Your task to perform on an android device: check google app version Image 0: 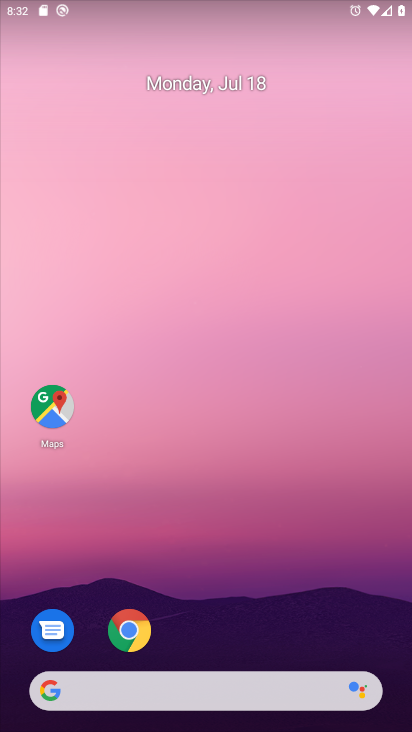
Step 0: drag from (241, 641) to (241, 156)
Your task to perform on an android device: check google app version Image 1: 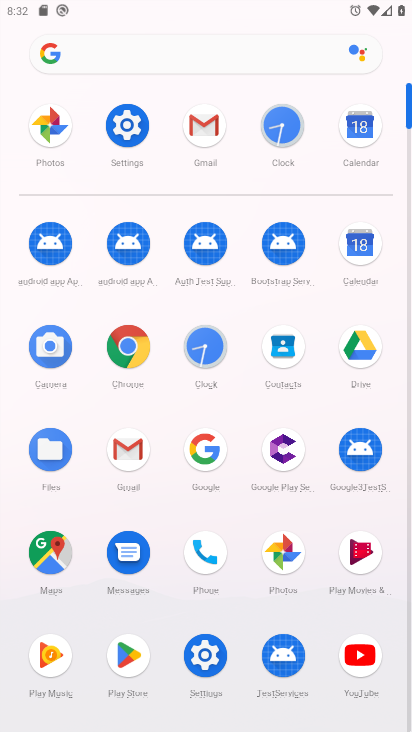
Step 1: click (211, 447)
Your task to perform on an android device: check google app version Image 2: 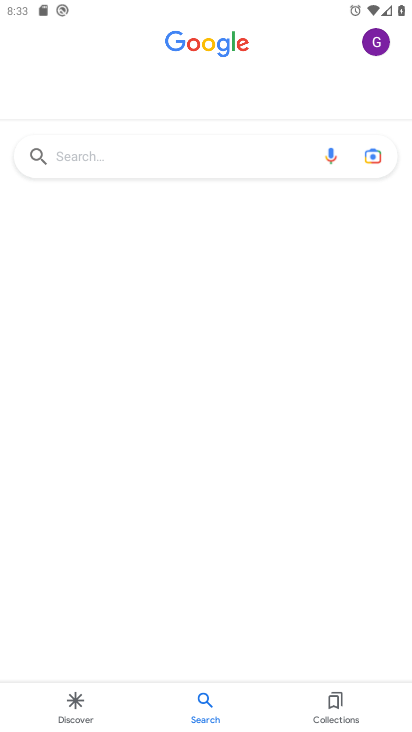
Step 2: click (386, 46)
Your task to perform on an android device: check google app version Image 3: 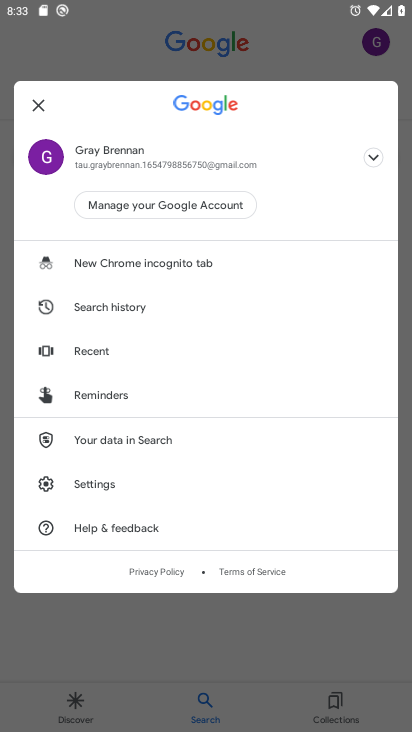
Step 3: click (104, 480)
Your task to perform on an android device: check google app version Image 4: 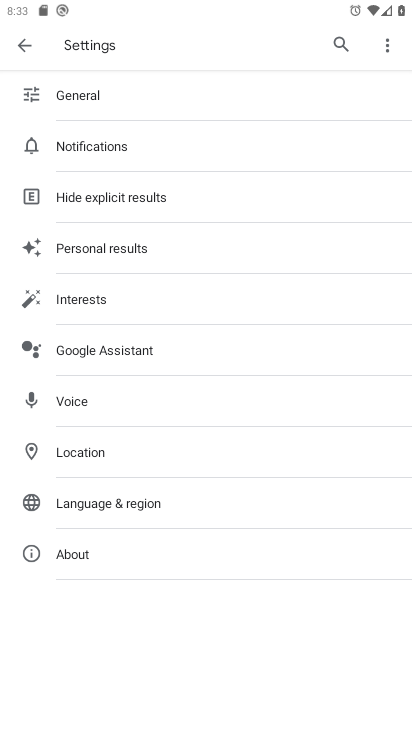
Step 4: click (104, 561)
Your task to perform on an android device: check google app version Image 5: 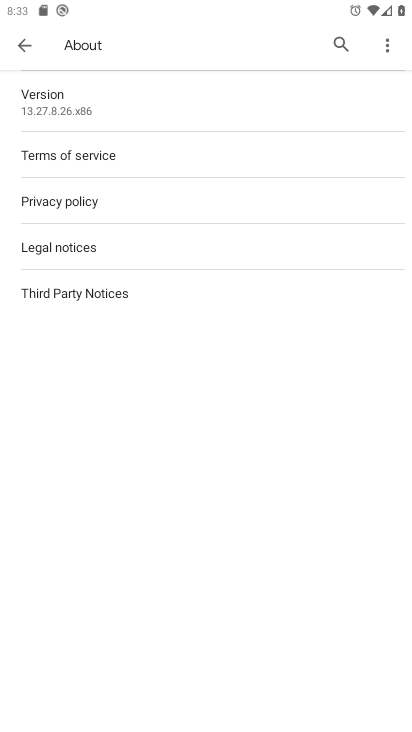
Step 5: click (85, 107)
Your task to perform on an android device: check google app version Image 6: 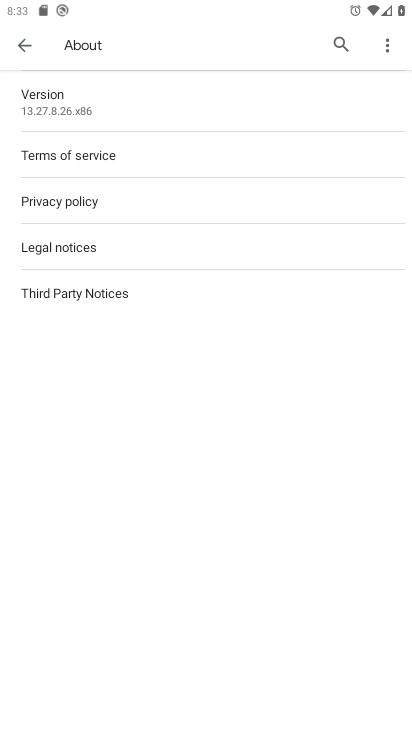
Step 6: click (85, 107)
Your task to perform on an android device: check google app version Image 7: 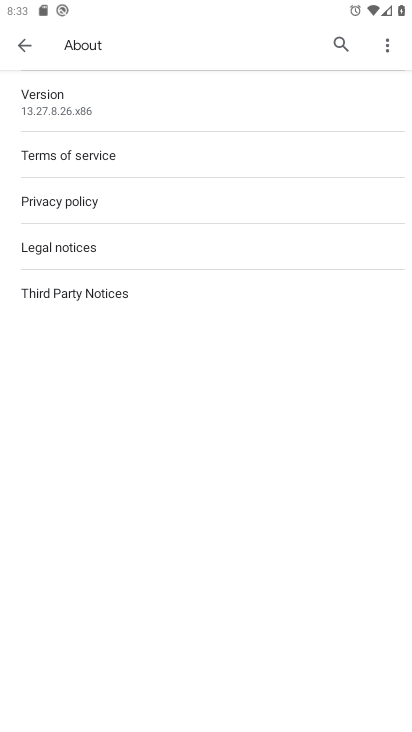
Step 7: task complete